Your task to perform on an android device: turn vacation reply on in the gmail app Image 0: 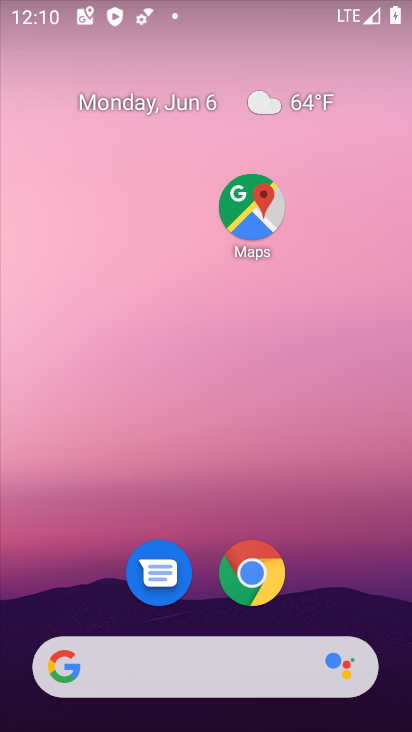
Step 0: drag from (124, 491) to (212, 13)
Your task to perform on an android device: turn vacation reply on in the gmail app Image 1: 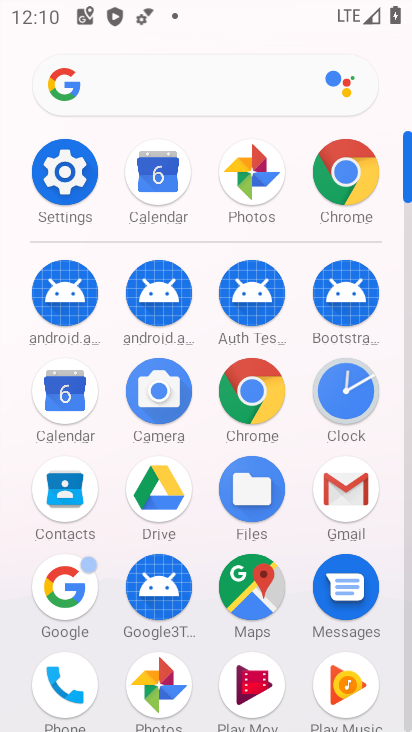
Step 1: click (350, 503)
Your task to perform on an android device: turn vacation reply on in the gmail app Image 2: 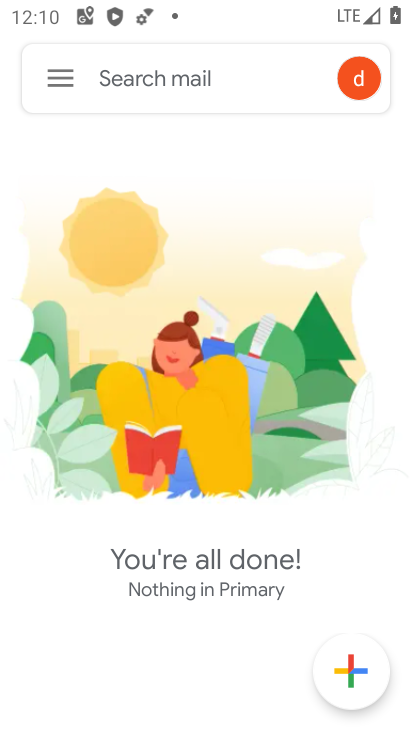
Step 2: click (73, 80)
Your task to perform on an android device: turn vacation reply on in the gmail app Image 3: 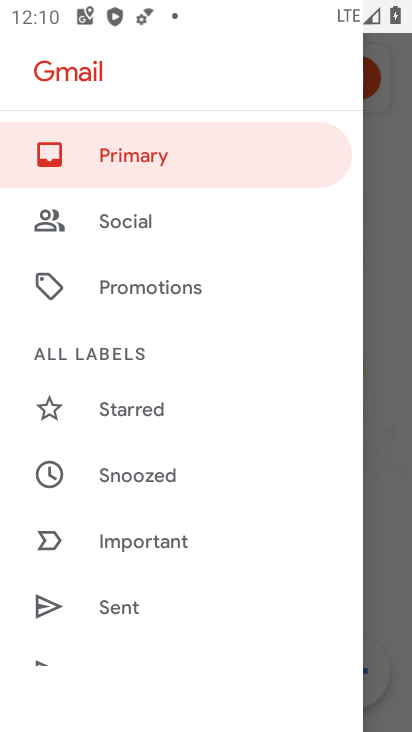
Step 3: drag from (158, 568) to (297, 8)
Your task to perform on an android device: turn vacation reply on in the gmail app Image 4: 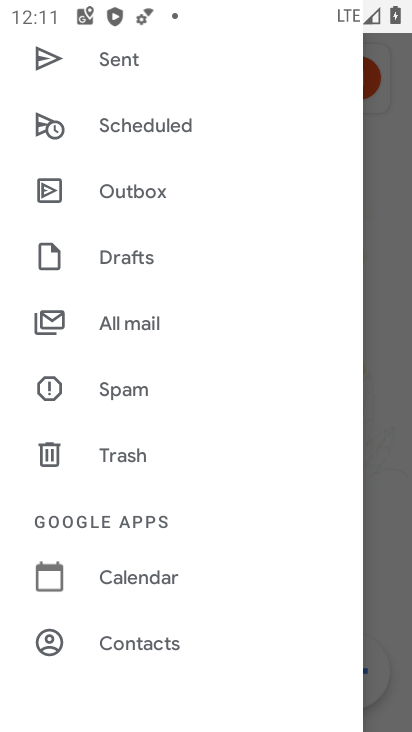
Step 4: drag from (150, 601) to (173, 0)
Your task to perform on an android device: turn vacation reply on in the gmail app Image 5: 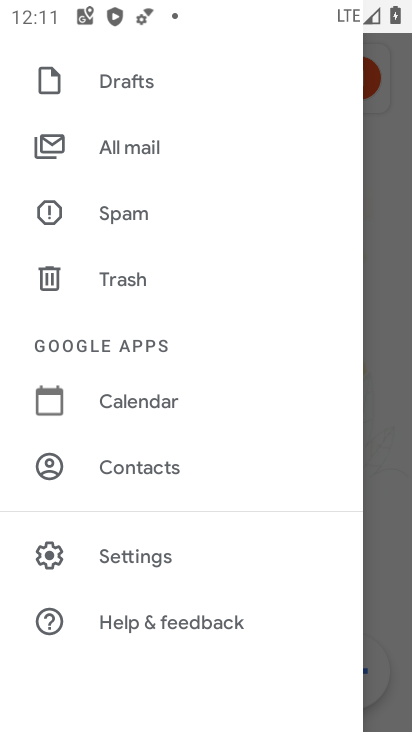
Step 5: click (146, 658)
Your task to perform on an android device: turn vacation reply on in the gmail app Image 6: 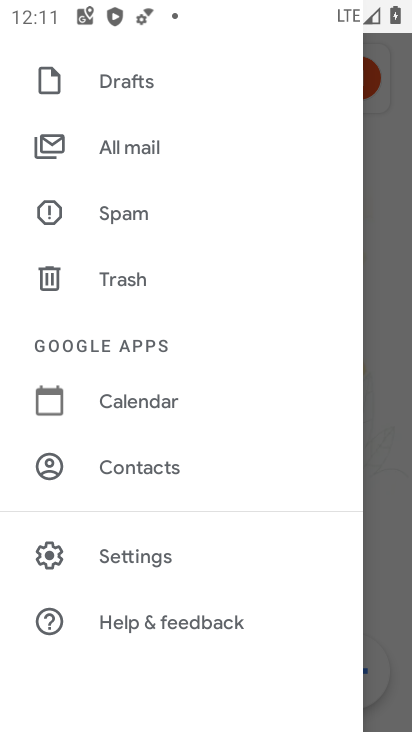
Step 6: click (164, 565)
Your task to perform on an android device: turn vacation reply on in the gmail app Image 7: 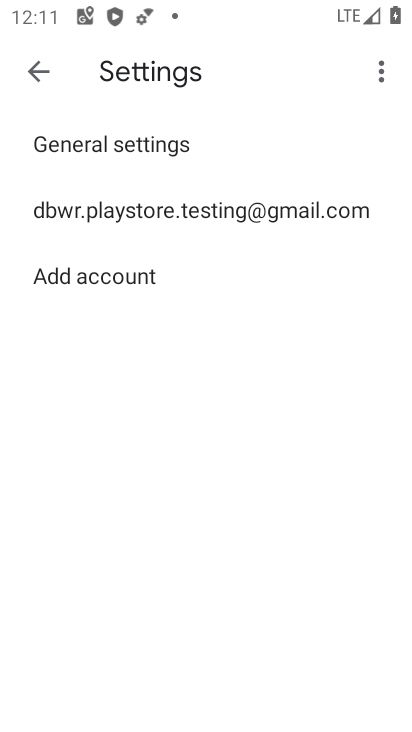
Step 7: click (214, 219)
Your task to perform on an android device: turn vacation reply on in the gmail app Image 8: 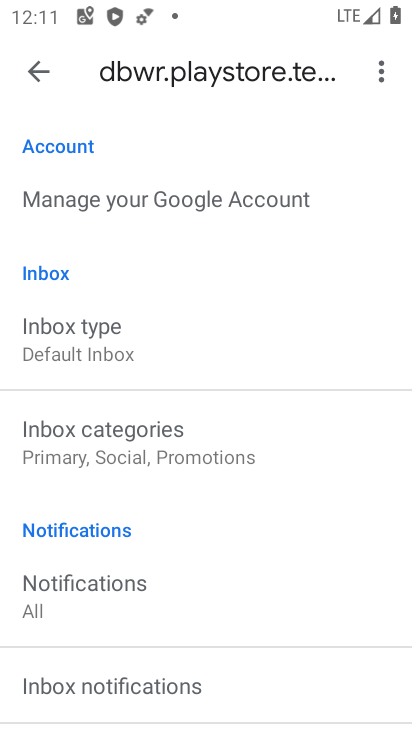
Step 8: drag from (173, 529) to (202, 199)
Your task to perform on an android device: turn vacation reply on in the gmail app Image 9: 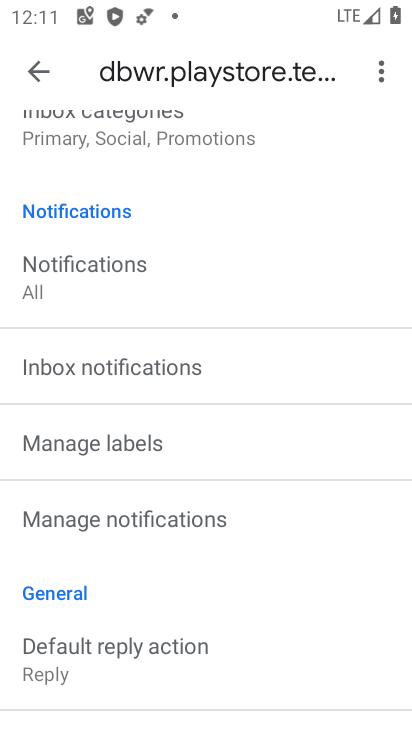
Step 9: drag from (188, 561) to (220, 127)
Your task to perform on an android device: turn vacation reply on in the gmail app Image 10: 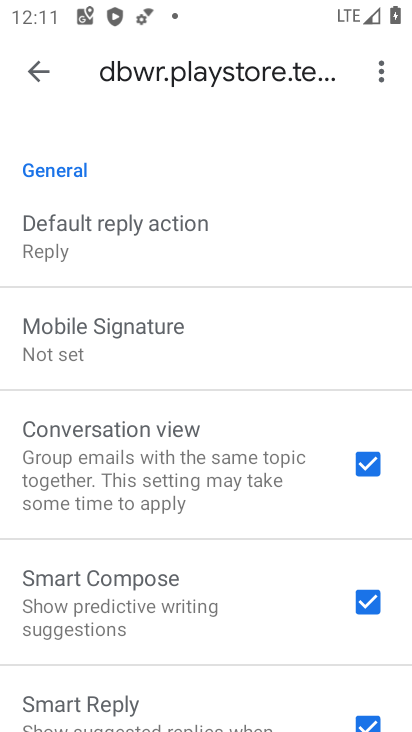
Step 10: drag from (133, 575) to (190, 152)
Your task to perform on an android device: turn vacation reply on in the gmail app Image 11: 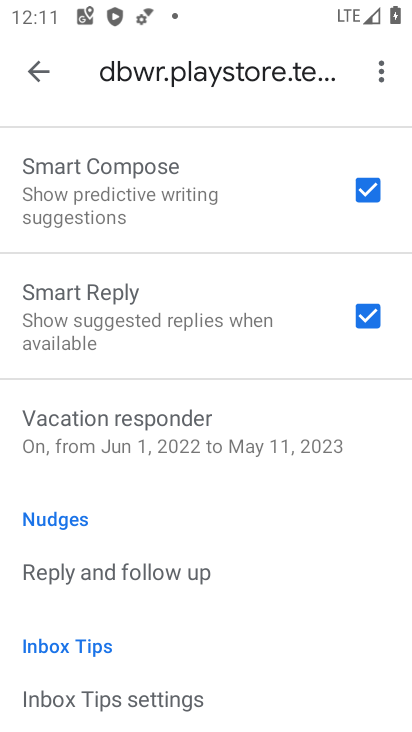
Step 11: click (201, 455)
Your task to perform on an android device: turn vacation reply on in the gmail app Image 12: 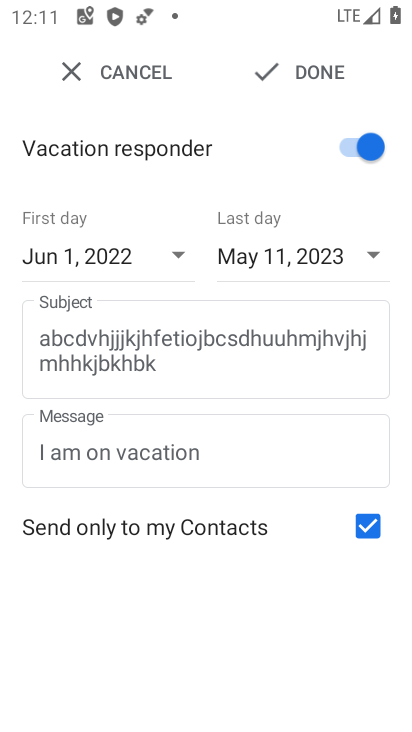
Step 12: click (323, 79)
Your task to perform on an android device: turn vacation reply on in the gmail app Image 13: 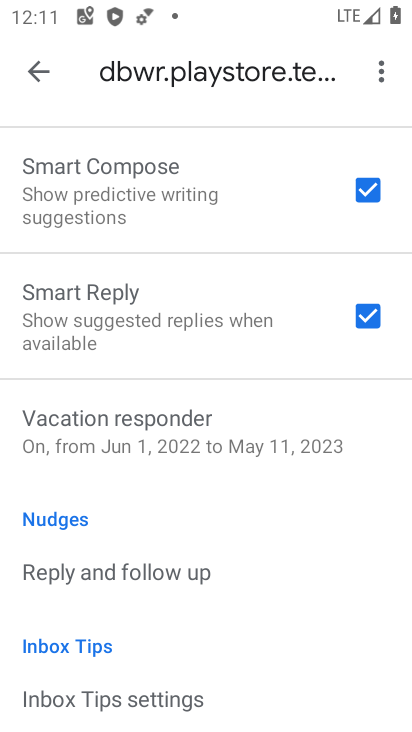
Step 13: task complete